Your task to perform on an android device: open a bookmark in the chrome app Image 0: 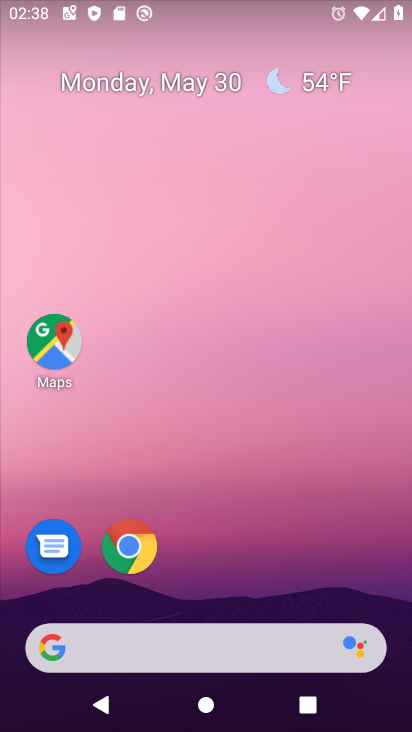
Step 0: press home button
Your task to perform on an android device: open a bookmark in the chrome app Image 1: 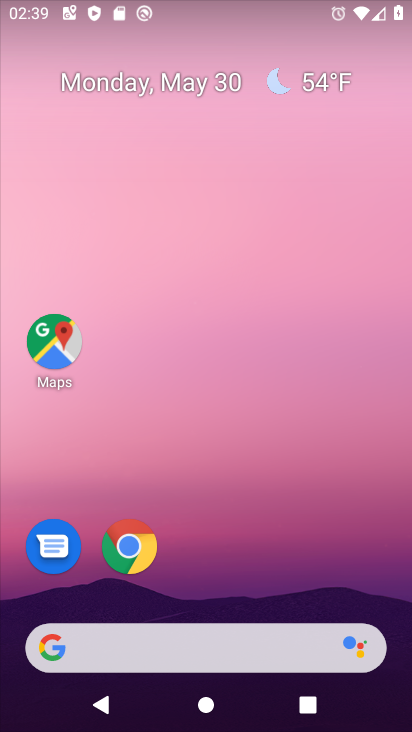
Step 1: click (137, 539)
Your task to perform on an android device: open a bookmark in the chrome app Image 2: 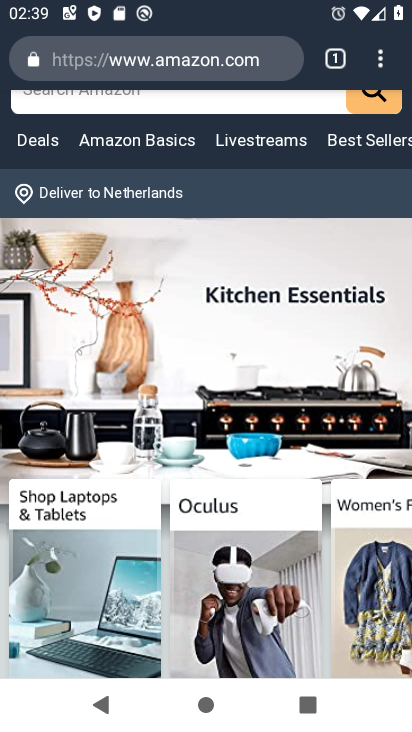
Step 2: click (378, 56)
Your task to perform on an android device: open a bookmark in the chrome app Image 3: 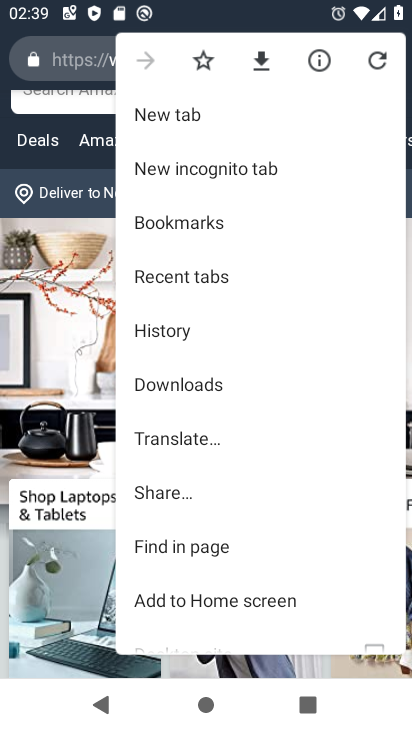
Step 3: click (232, 219)
Your task to perform on an android device: open a bookmark in the chrome app Image 4: 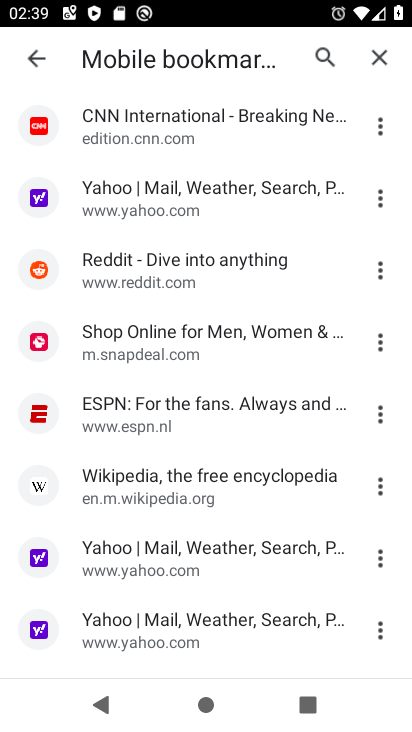
Step 4: click (192, 345)
Your task to perform on an android device: open a bookmark in the chrome app Image 5: 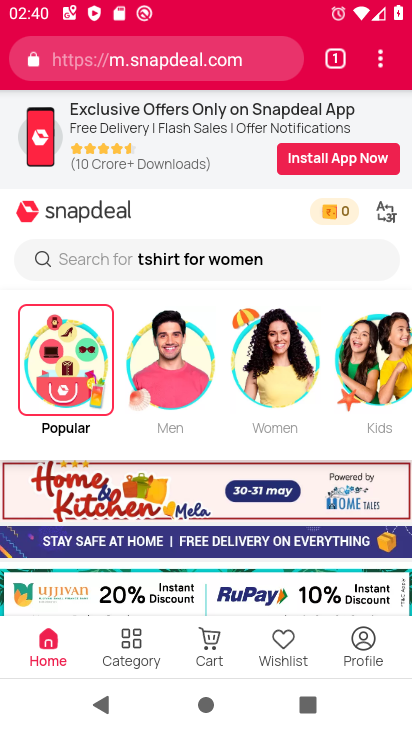
Step 5: task complete